Your task to perform on an android device: star an email in the gmail app Image 0: 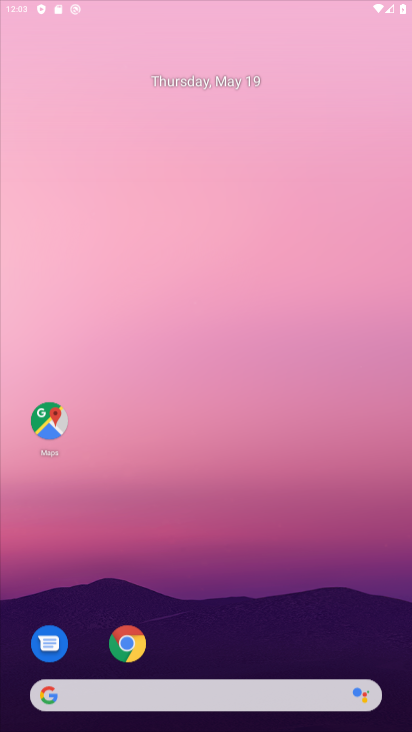
Step 0: drag from (344, 368) to (344, 125)
Your task to perform on an android device: star an email in the gmail app Image 1: 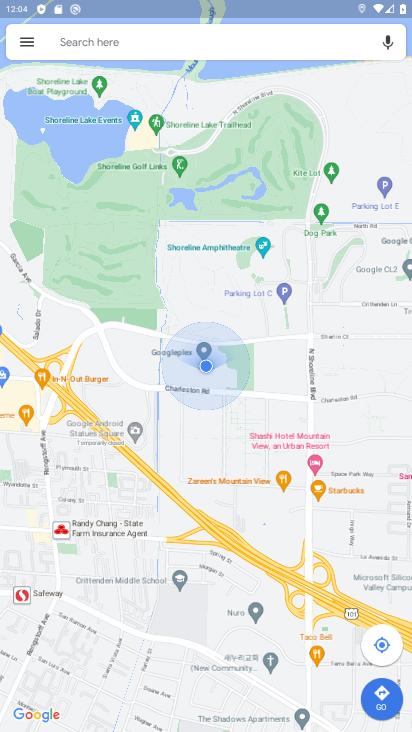
Step 1: press home button
Your task to perform on an android device: star an email in the gmail app Image 2: 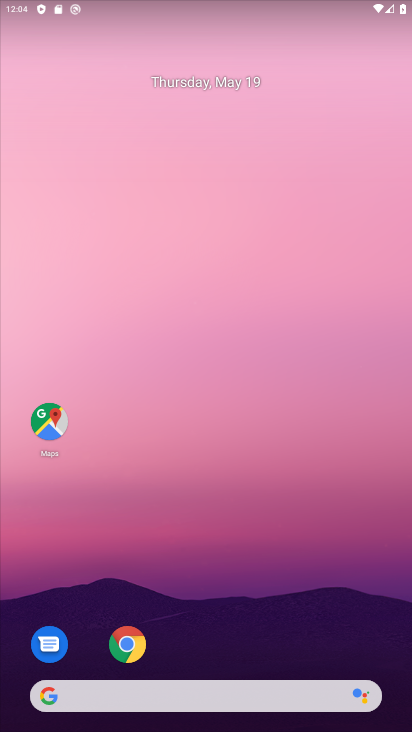
Step 2: drag from (358, 602) to (366, 129)
Your task to perform on an android device: star an email in the gmail app Image 3: 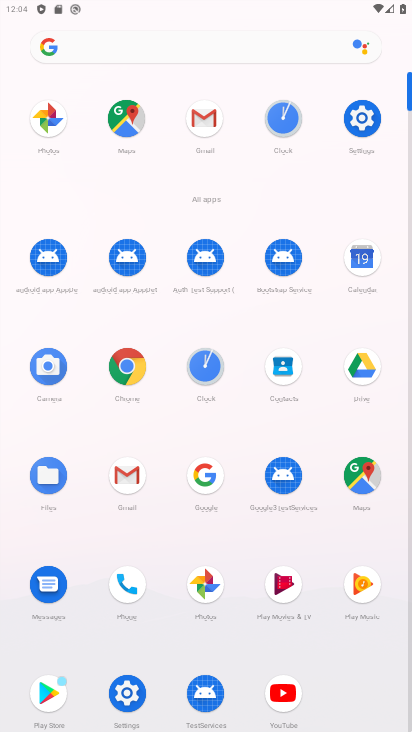
Step 3: click (129, 482)
Your task to perform on an android device: star an email in the gmail app Image 4: 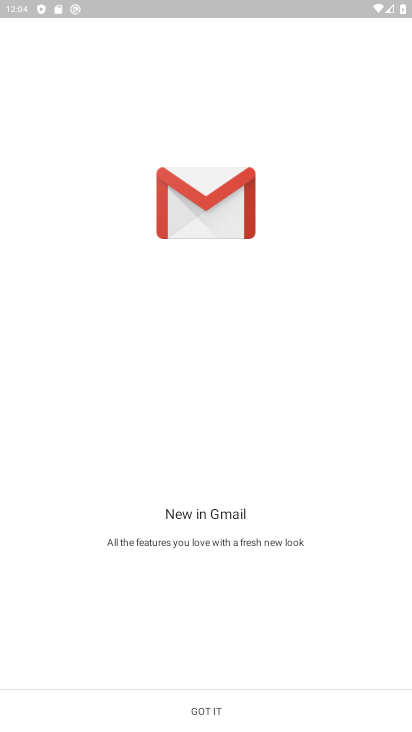
Step 4: click (209, 703)
Your task to perform on an android device: star an email in the gmail app Image 5: 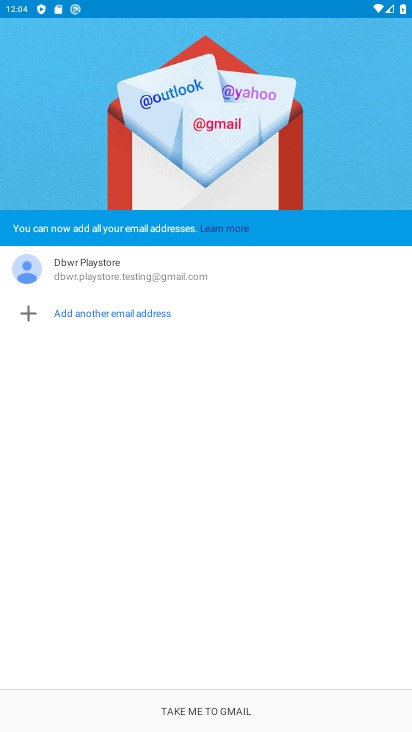
Step 5: click (205, 699)
Your task to perform on an android device: star an email in the gmail app Image 6: 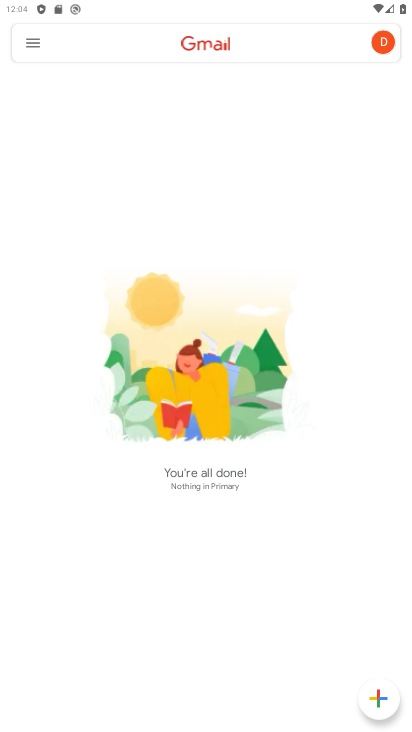
Step 6: click (34, 41)
Your task to perform on an android device: star an email in the gmail app Image 7: 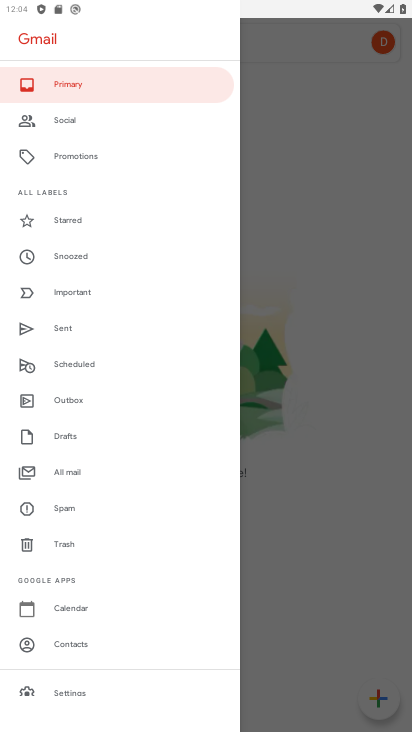
Step 7: click (81, 467)
Your task to perform on an android device: star an email in the gmail app Image 8: 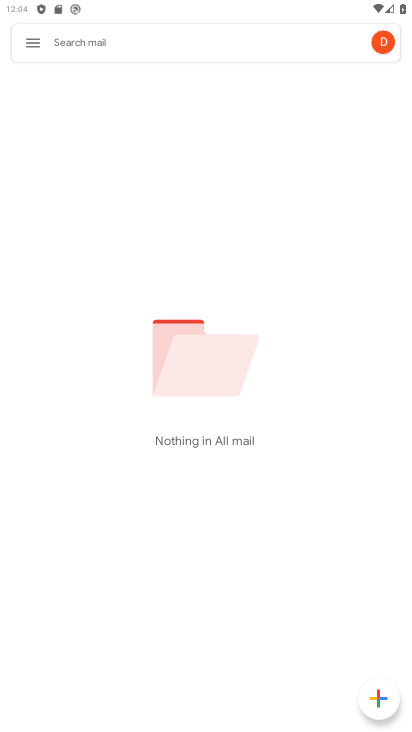
Step 8: task complete